Your task to perform on an android device: Open settings Image 0: 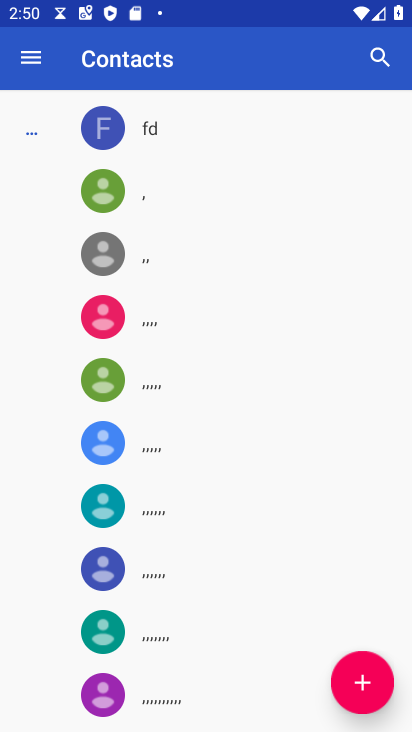
Step 0: press home button
Your task to perform on an android device: Open settings Image 1: 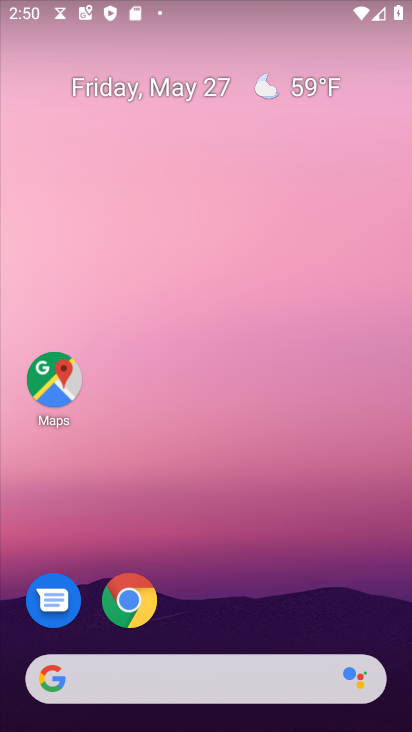
Step 1: drag from (256, 578) to (220, 164)
Your task to perform on an android device: Open settings Image 2: 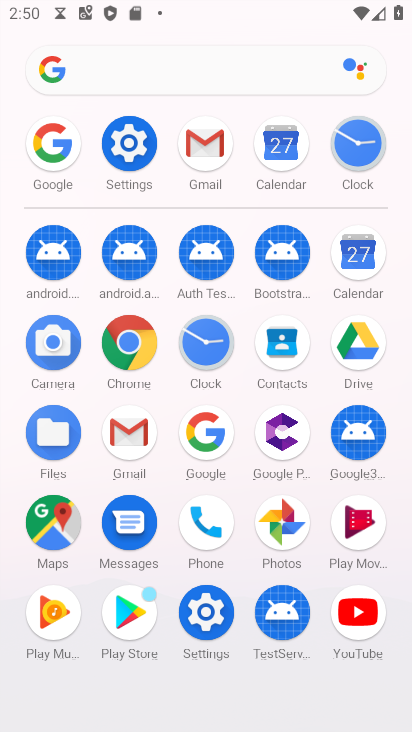
Step 2: click (128, 140)
Your task to perform on an android device: Open settings Image 3: 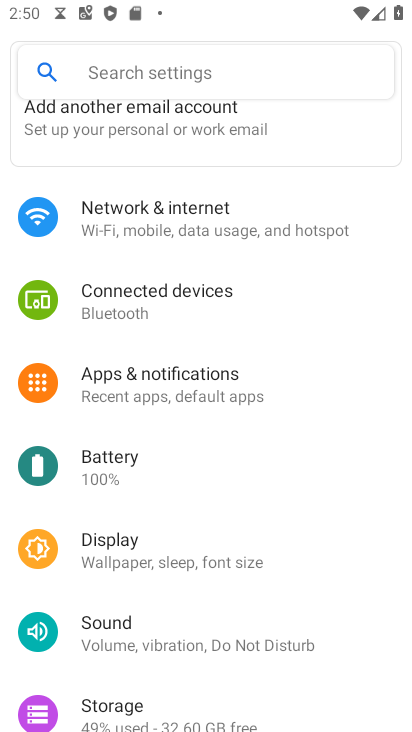
Step 3: task complete